Your task to perform on an android device: toggle translation in the chrome app Image 0: 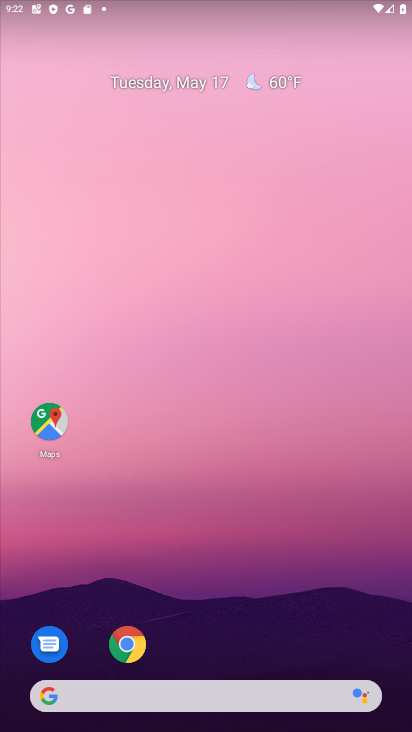
Step 0: click (121, 646)
Your task to perform on an android device: toggle translation in the chrome app Image 1: 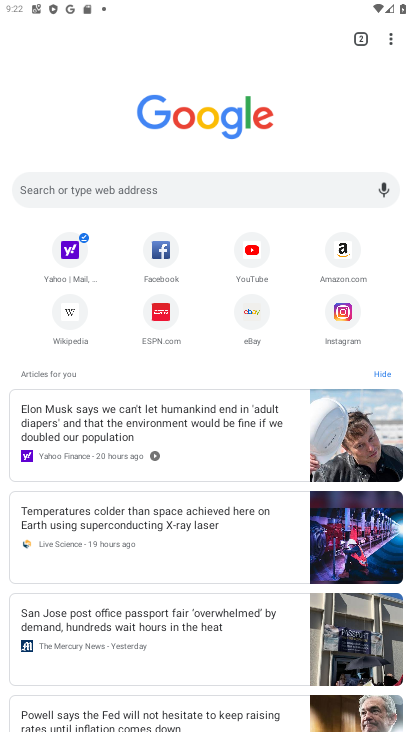
Step 1: click (391, 38)
Your task to perform on an android device: toggle translation in the chrome app Image 2: 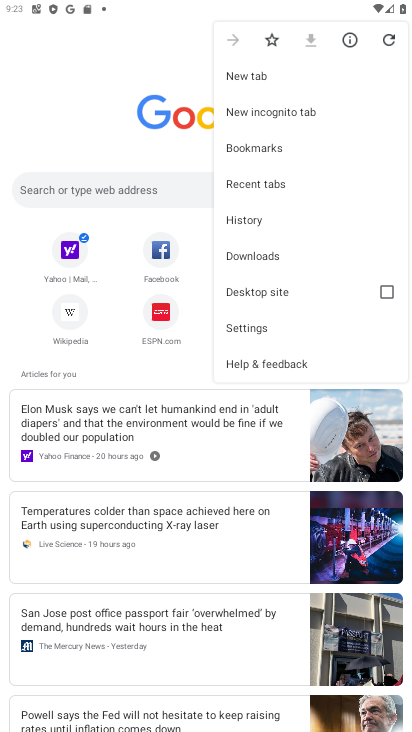
Step 2: click (254, 334)
Your task to perform on an android device: toggle translation in the chrome app Image 3: 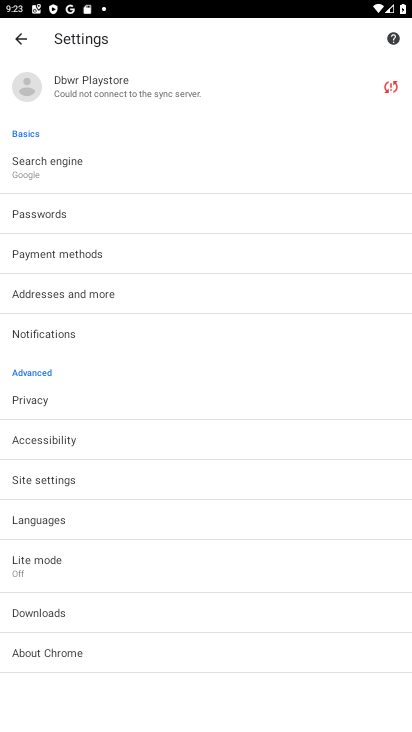
Step 3: click (33, 520)
Your task to perform on an android device: toggle translation in the chrome app Image 4: 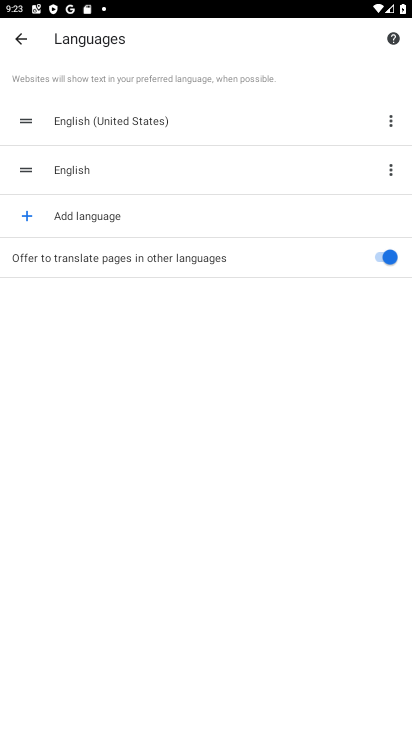
Step 4: click (389, 261)
Your task to perform on an android device: toggle translation in the chrome app Image 5: 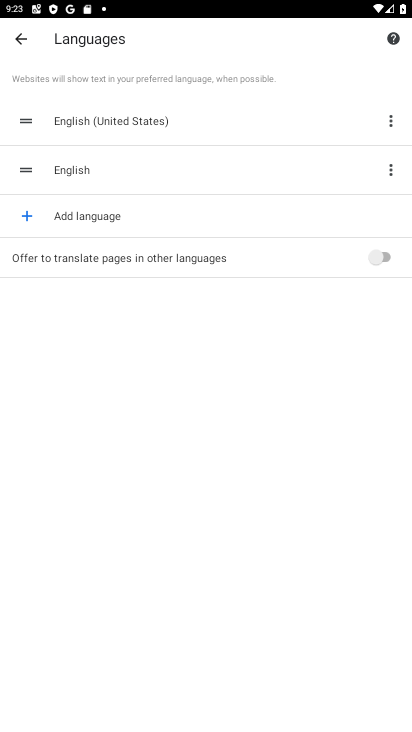
Step 5: click (389, 261)
Your task to perform on an android device: toggle translation in the chrome app Image 6: 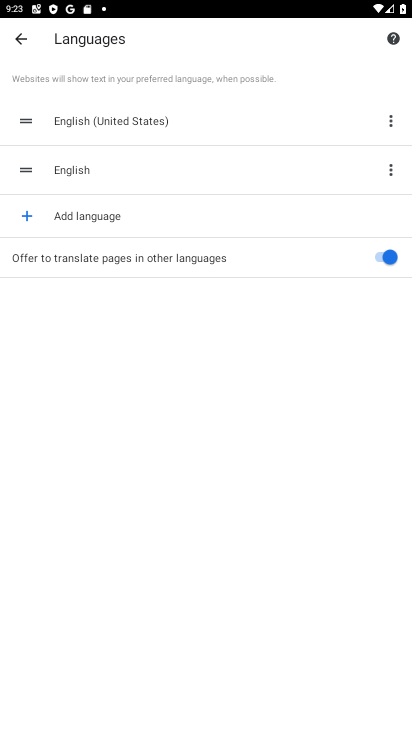
Step 6: task complete